Your task to perform on an android device: see sites visited before in the chrome app Image 0: 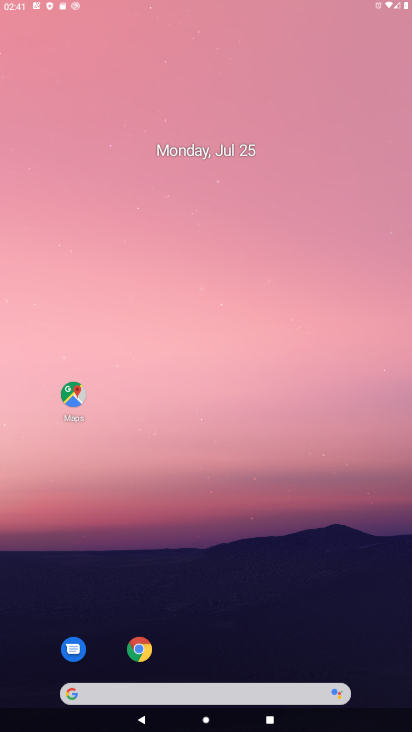
Step 0: press home button
Your task to perform on an android device: see sites visited before in the chrome app Image 1: 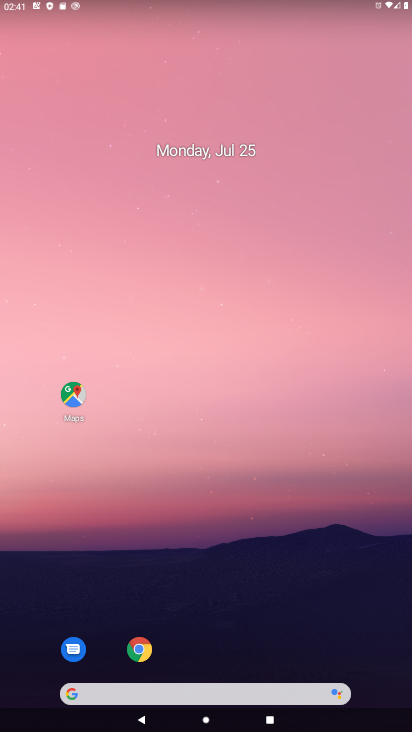
Step 1: click (140, 651)
Your task to perform on an android device: see sites visited before in the chrome app Image 2: 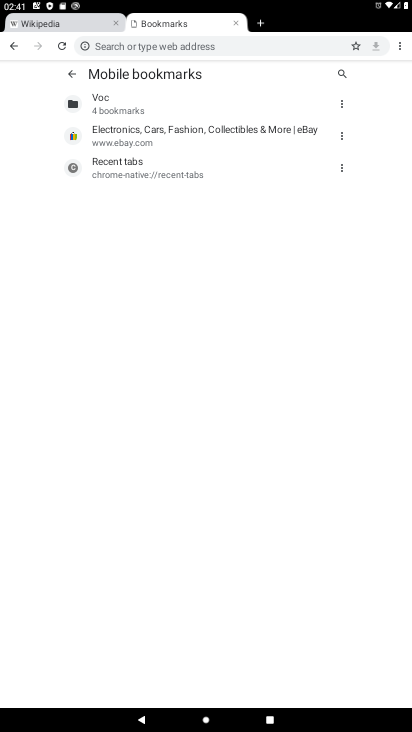
Step 2: click (399, 49)
Your task to perform on an android device: see sites visited before in the chrome app Image 3: 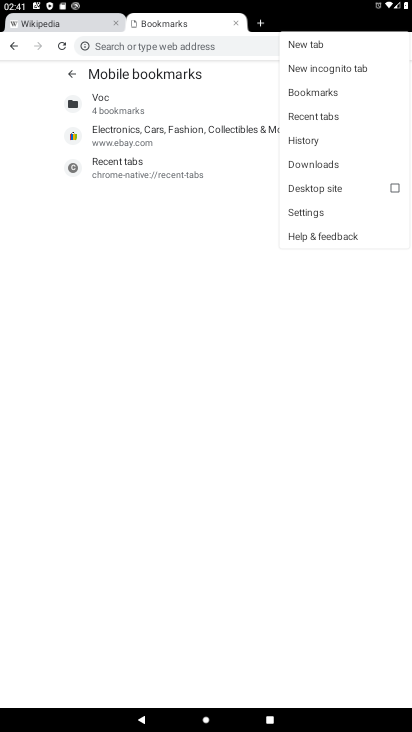
Step 3: click (305, 136)
Your task to perform on an android device: see sites visited before in the chrome app Image 4: 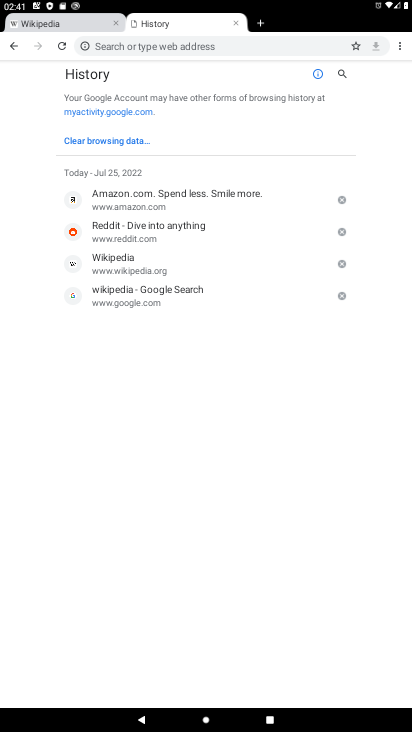
Step 4: task complete